Your task to perform on an android device: open chrome and create a bookmark for the current page Image 0: 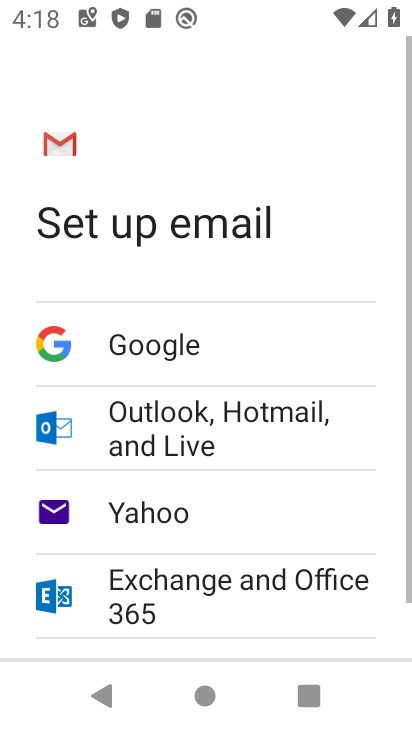
Step 0: press home button
Your task to perform on an android device: open chrome and create a bookmark for the current page Image 1: 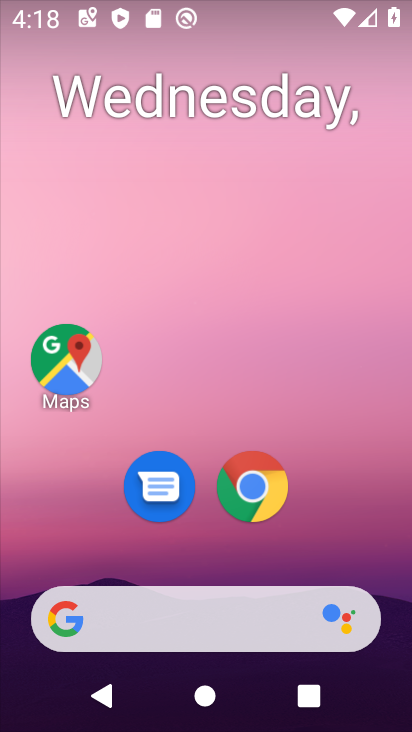
Step 1: drag from (303, 510) to (285, 7)
Your task to perform on an android device: open chrome and create a bookmark for the current page Image 2: 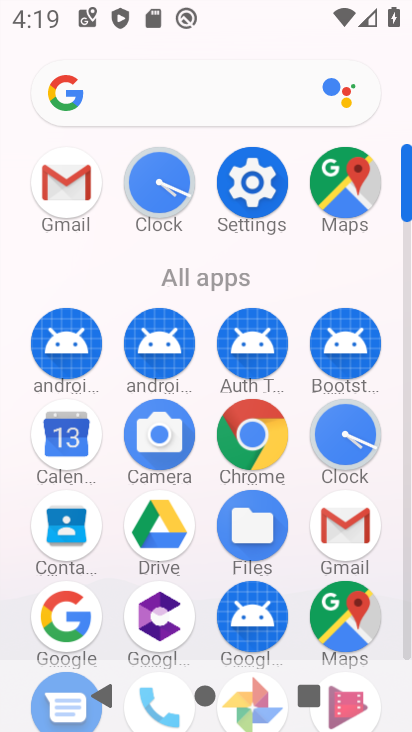
Step 2: click (259, 475)
Your task to perform on an android device: open chrome and create a bookmark for the current page Image 3: 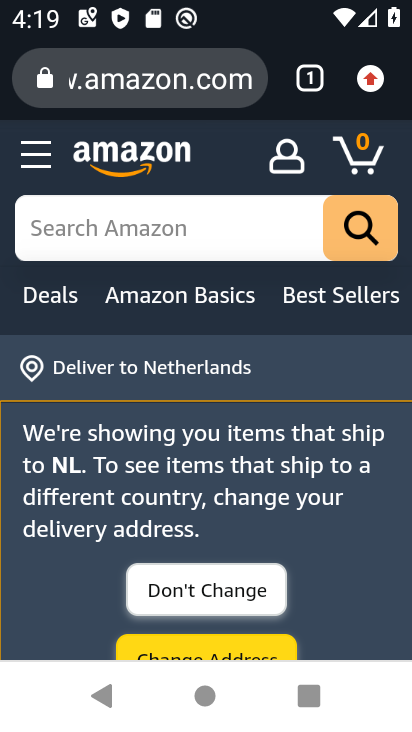
Step 3: click (377, 97)
Your task to perform on an android device: open chrome and create a bookmark for the current page Image 4: 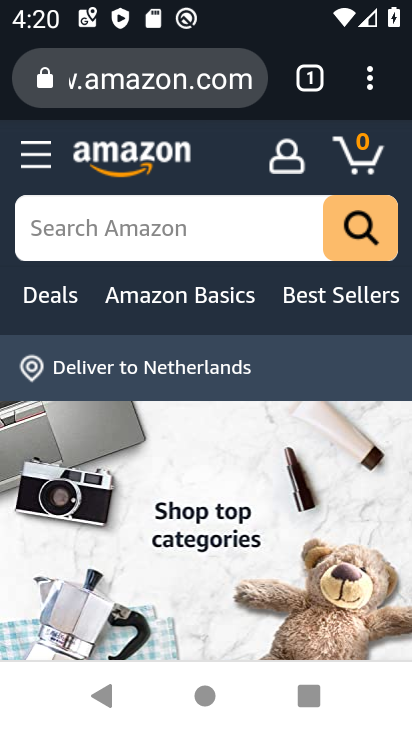
Step 4: click (380, 93)
Your task to perform on an android device: open chrome and create a bookmark for the current page Image 5: 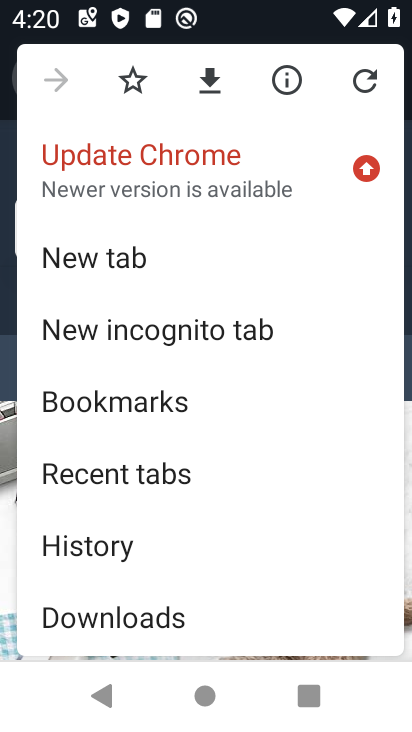
Step 5: click (130, 83)
Your task to perform on an android device: open chrome and create a bookmark for the current page Image 6: 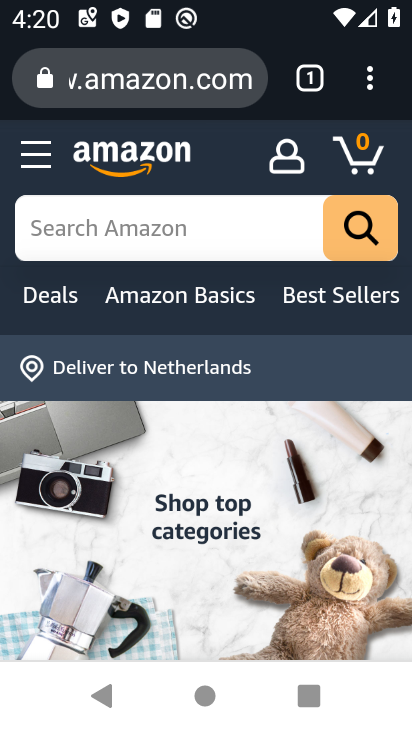
Step 6: task complete